Your task to perform on an android device: toggle priority inbox in the gmail app Image 0: 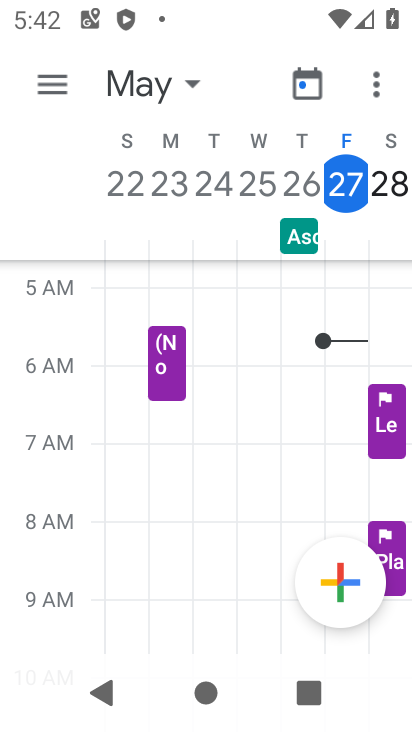
Step 0: press back button
Your task to perform on an android device: toggle priority inbox in the gmail app Image 1: 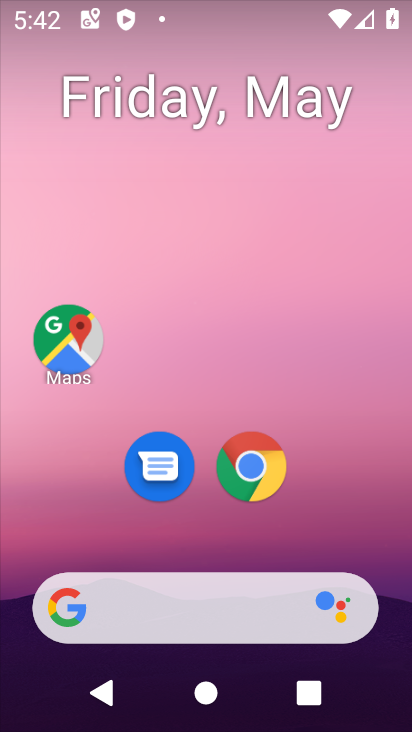
Step 1: drag from (378, 514) to (239, 7)
Your task to perform on an android device: toggle priority inbox in the gmail app Image 2: 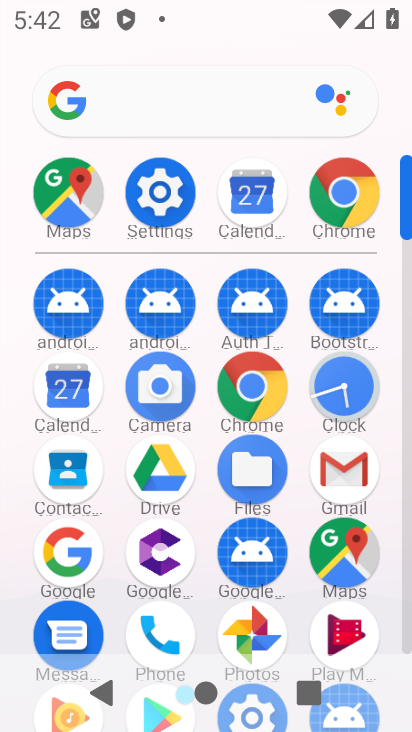
Step 2: drag from (14, 523) to (23, 190)
Your task to perform on an android device: toggle priority inbox in the gmail app Image 3: 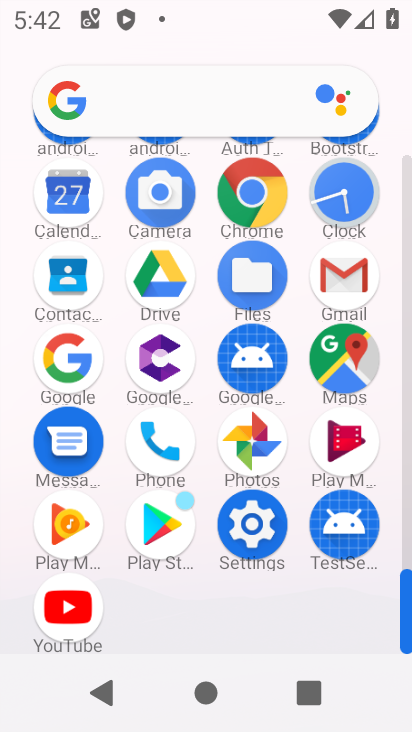
Step 3: click (338, 271)
Your task to perform on an android device: toggle priority inbox in the gmail app Image 4: 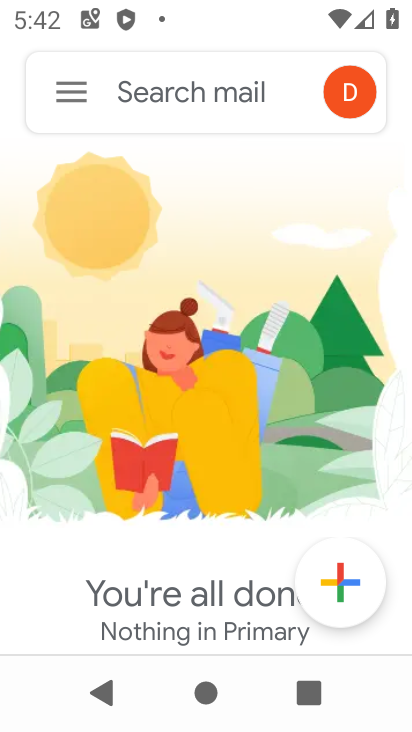
Step 4: click (80, 86)
Your task to perform on an android device: toggle priority inbox in the gmail app Image 5: 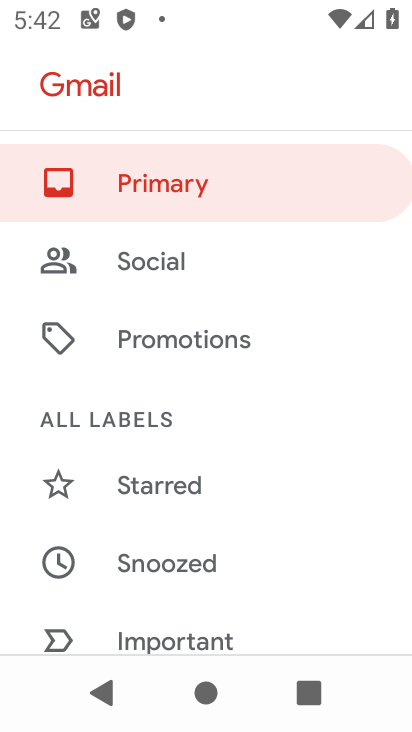
Step 5: drag from (206, 561) to (241, 133)
Your task to perform on an android device: toggle priority inbox in the gmail app Image 6: 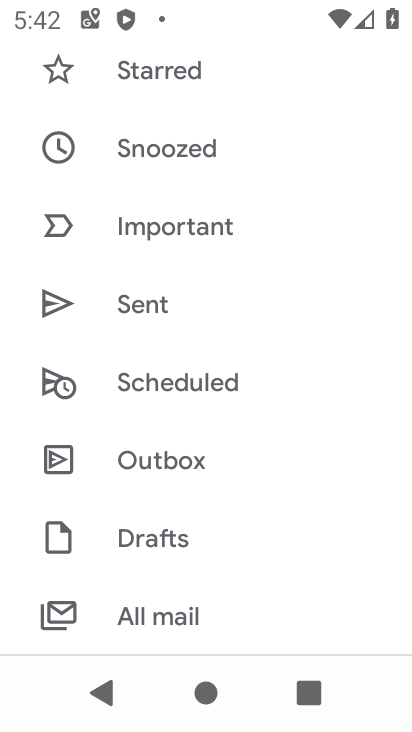
Step 6: drag from (210, 518) to (218, 118)
Your task to perform on an android device: toggle priority inbox in the gmail app Image 7: 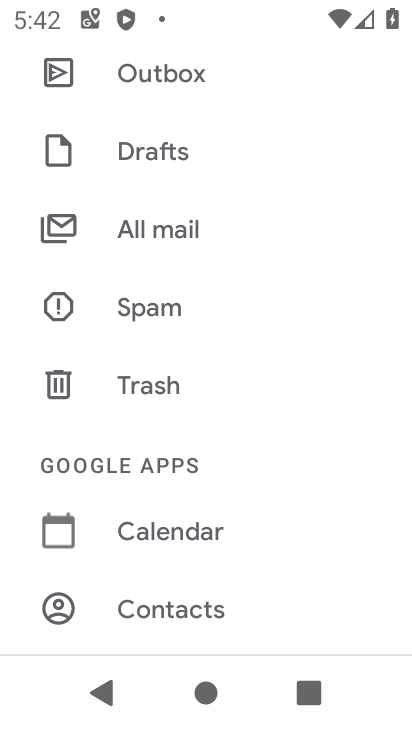
Step 7: drag from (214, 552) to (268, 113)
Your task to perform on an android device: toggle priority inbox in the gmail app Image 8: 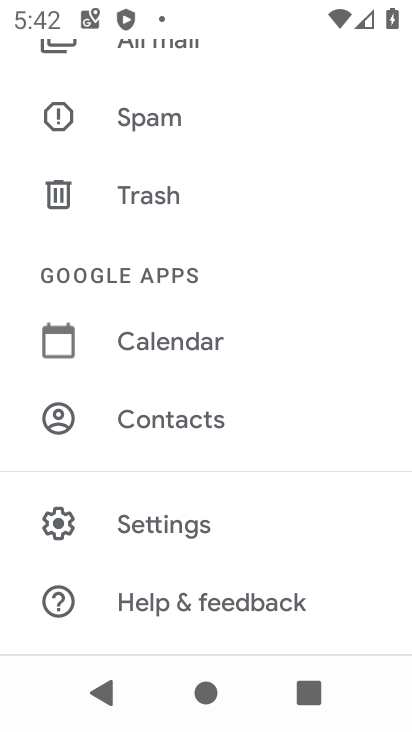
Step 8: click (169, 506)
Your task to perform on an android device: toggle priority inbox in the gmail app Image 9: 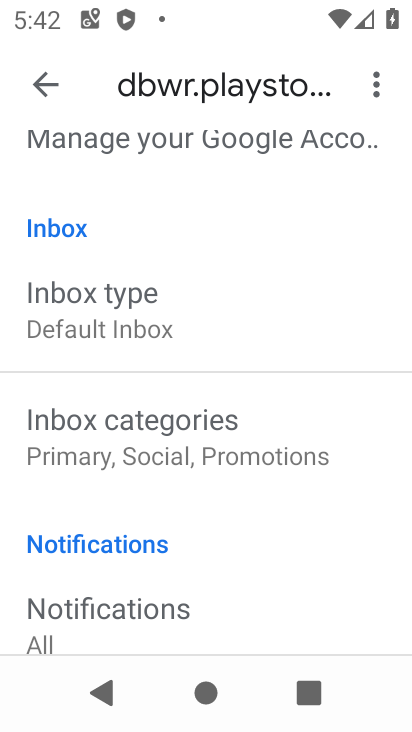
Step 9: drag from (214, 550) to (260, 123)
Your task to perform on an android device: toggle priority inbox in the gmail app Image 10: 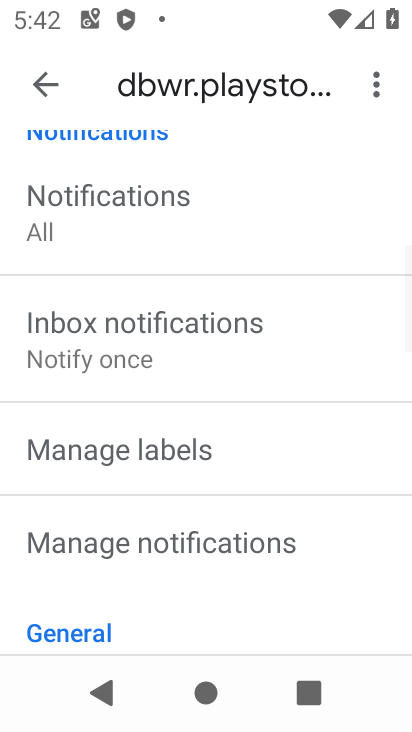
Step 10: drag from (239, 583) to (286, 159)
Your task to perform on an android device: toggle priority inbox in the gmail app Image 11: 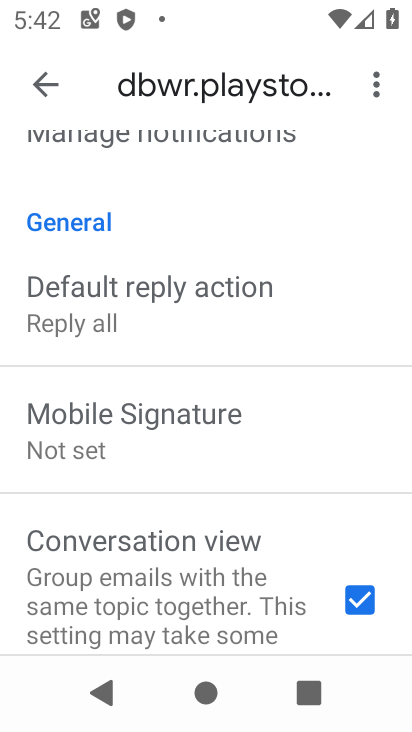
Step 11: drag from (248, 560) to (280, 141)
Your task to perform on an android device: toggle priority inbox in the gmail app Image 12: 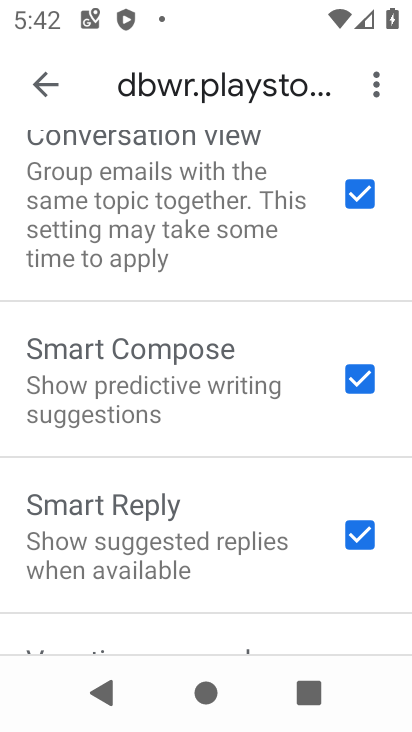
Step 12: drag from (202, 584) to (260, 169)
Your task to perform on an android device: toggle priority inbox in the gmail app Image 13: 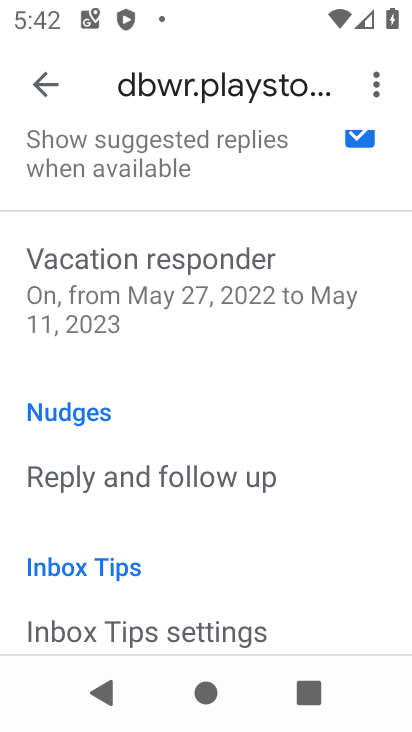
Step 13: drag from (205, 574) to (283, 153)
Your task to perform on an android device: toggle priority inbox in the gmail app Image 14: 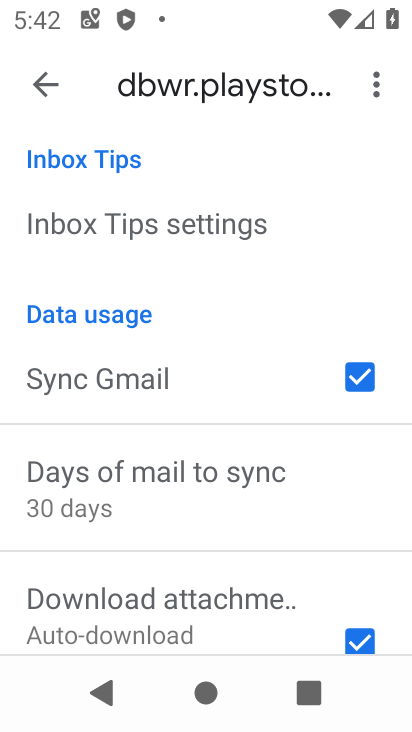
Step 14: drag from (180, 531) to (244, 132)
Your task to perform on an android device: toggle priority inbox in the gmail app Image 15: 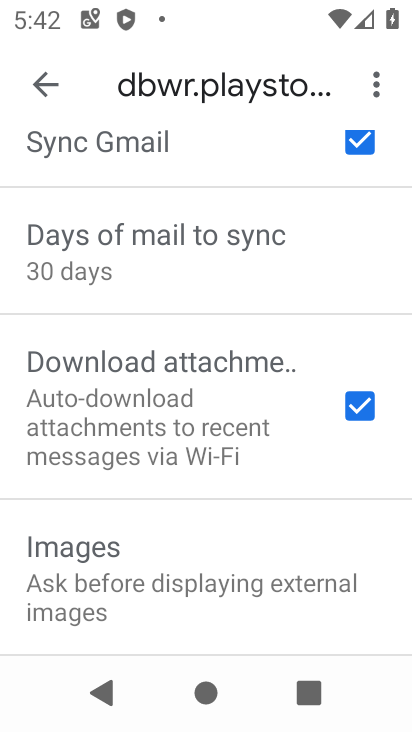
Step 15: drag from (172, 573) to (225, 171)
Your task to perform on an android device: toggle priority inbox in the gmail app Image 16: 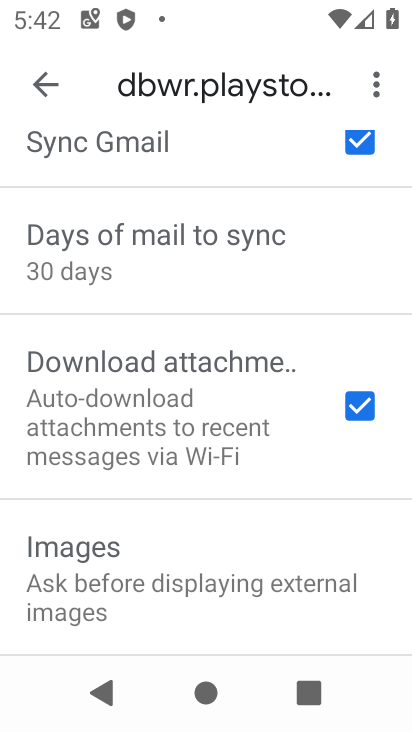
Step 16: drag from (197, 282) to (190, 607)
Your task to perform on an android device: toggle priority inbox in the gmail app Image 17: 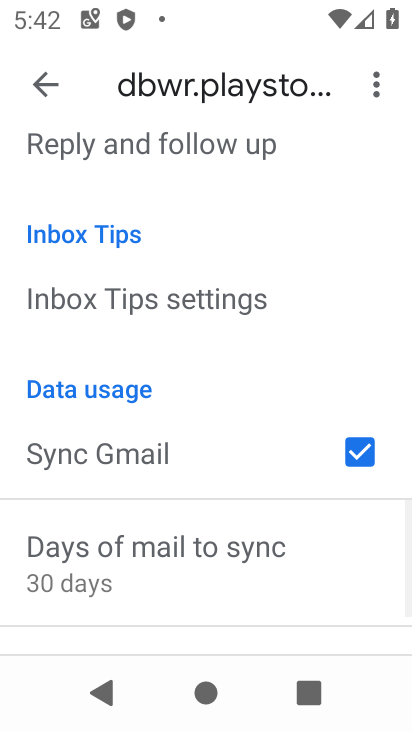
Step 17: drag from (189, 231) to (185, 570)
Your task to perform on an android device: toggle priority inbox in the gmail app Image 18: 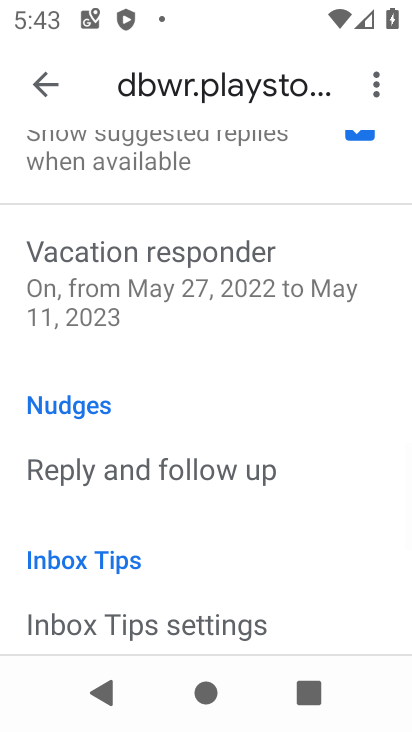
Step 18: drag from (251, 236) to (251, 516)
Your task to perform on an android device: toggle priority inbox in the gmail app Image 19: 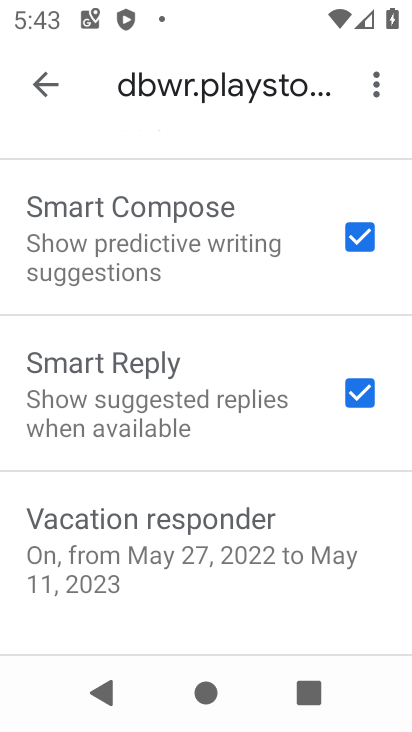
Step 19: drag from (207, 284) to (204, 604)
Your task to perform on an android device: toggle priority inbox in the gmail app Image 20: 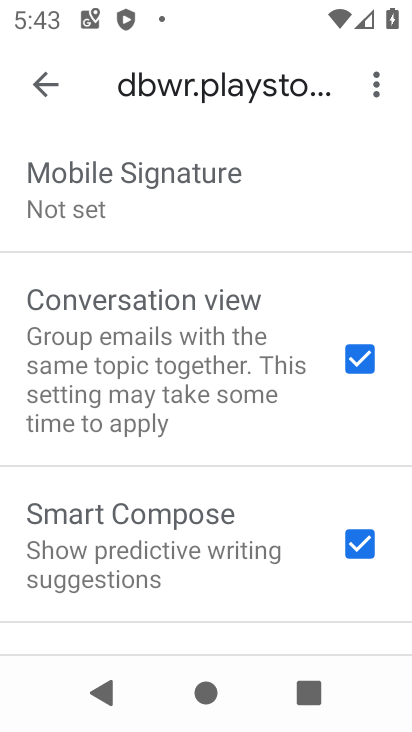
Step 20: drag from (202, 179) to (202, 575)
Your task to perform on an android device: toggle priority inbox in the gmail app Image 21: 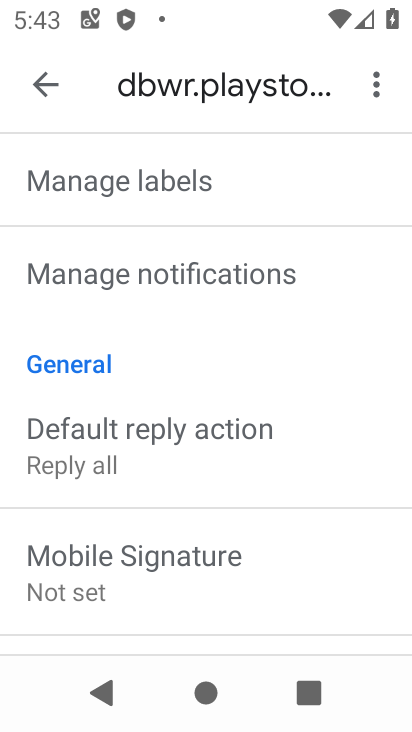
Step 21: drag from (205, 239) to (206, 587)
Your task to perform on an android device: toggle priority inbox in the gmail app Image 22: 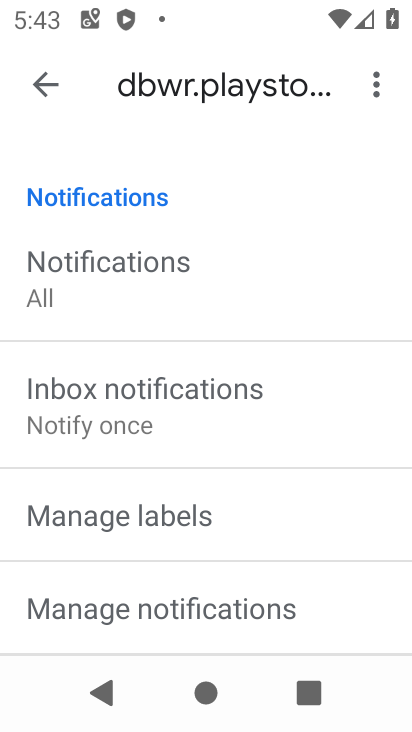
Step 22: drag from (227, 306) to (221, 596)
Your task to perform on an android device: toggle priority inbox in the gmail app Image 23: 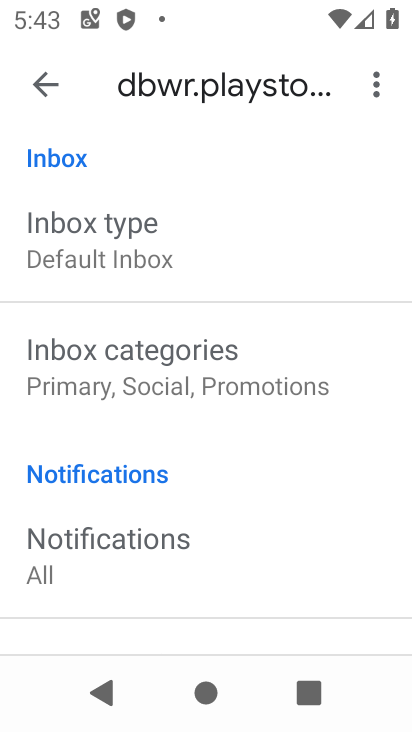
Step 23: drag from (246, 256) to (245, 548)
Your task to perform on an android device: toggle priority inbox in the gmail app Image 24: 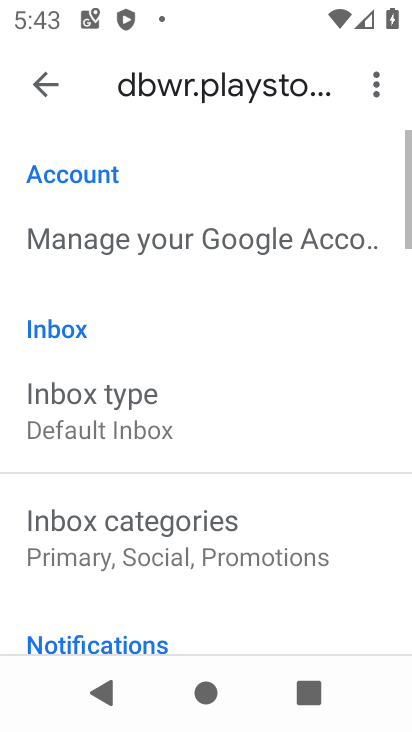
Step 24: click (159, 408)
Your task to perform on an android device: toggle priority inbox in the gmail app Image 25: 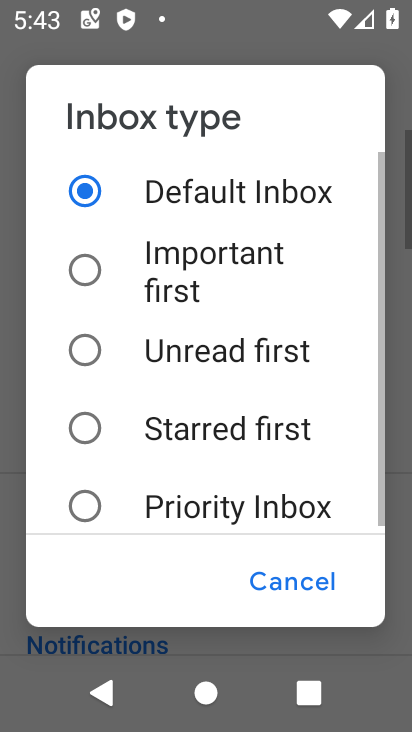
Step 25: click (150, 509)
Your task to perform on an android device: toggle priority inbox in the gmail app Image 26: 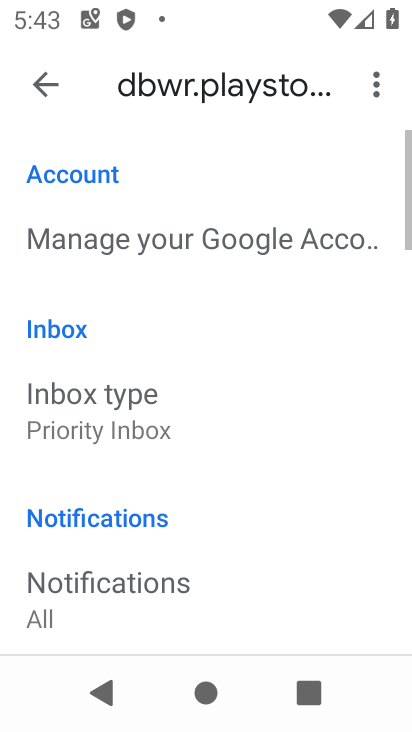
Step 26: task complete